Your task to perform on an android device: View the shopping cart on target.com. Image 0: 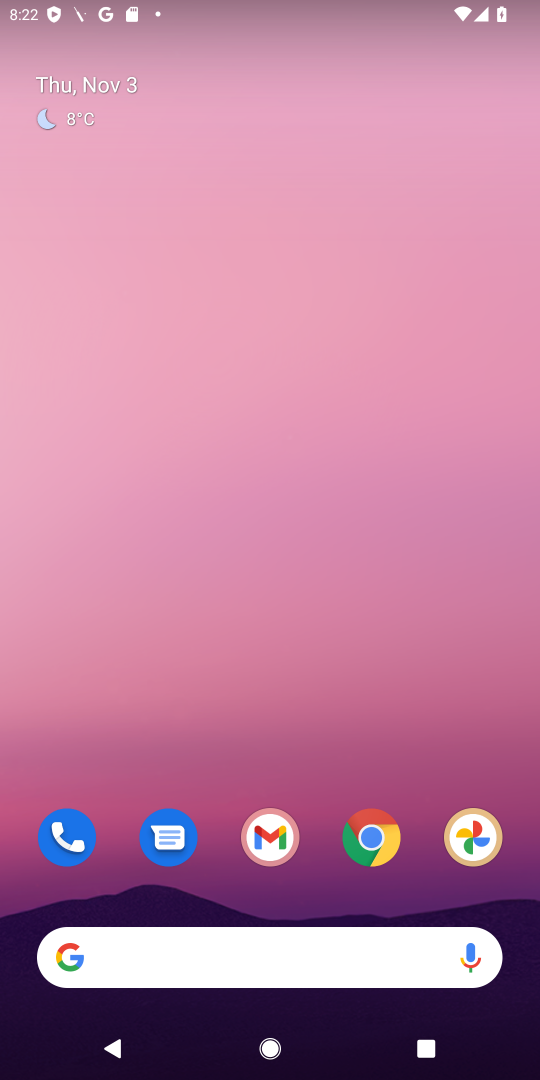
Step 0: click (374, 835)
Your task to perform on an android device: View the shopping cart on target.com. Image 1: 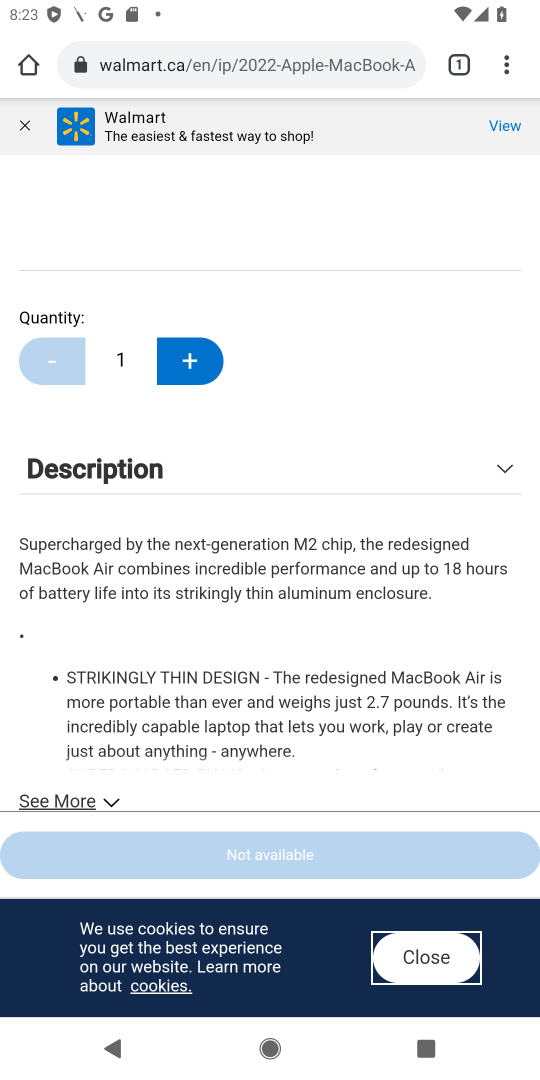
Step 1: click (258, 57)
Your task to perform on an android device: View the shopping cart on target.com. Image 2: 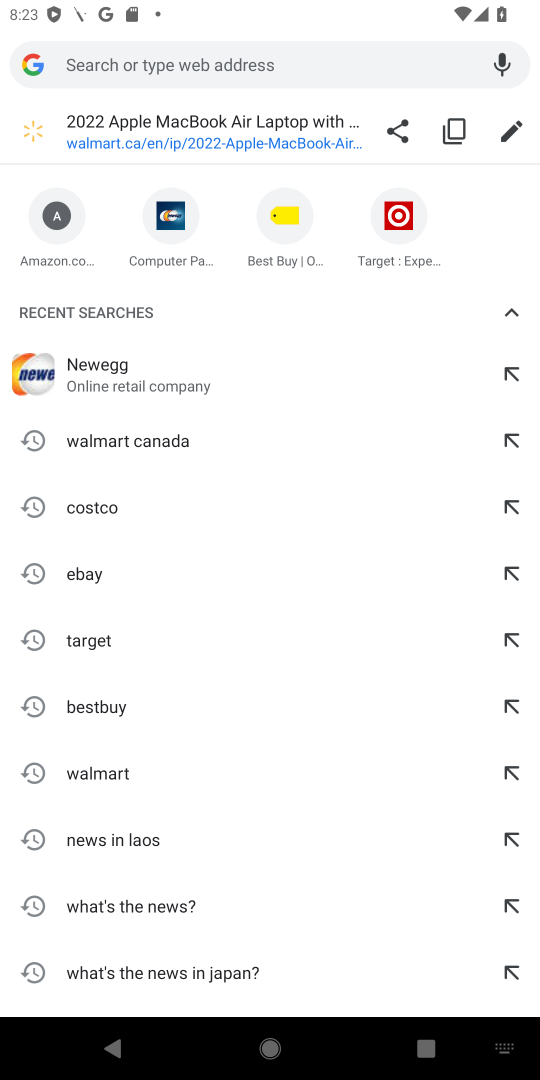
Step 2: click (87, 642)
Your task to perform on an android device: View the shopping cart on target.com. Image 3: 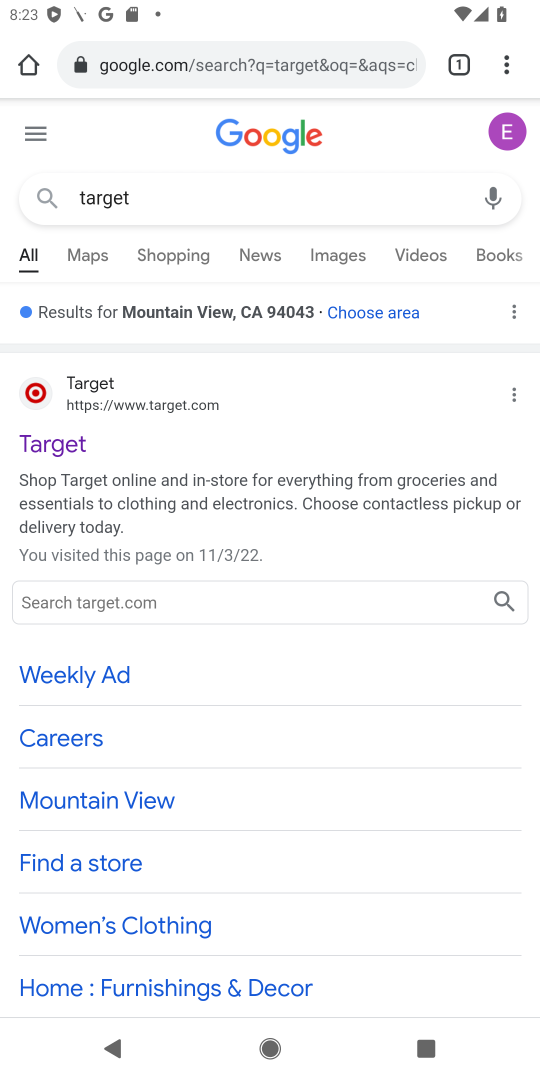
Step 3: click (56, 451)
Your task to perform on an android device: View the shopping cart on target.com. Image 4: 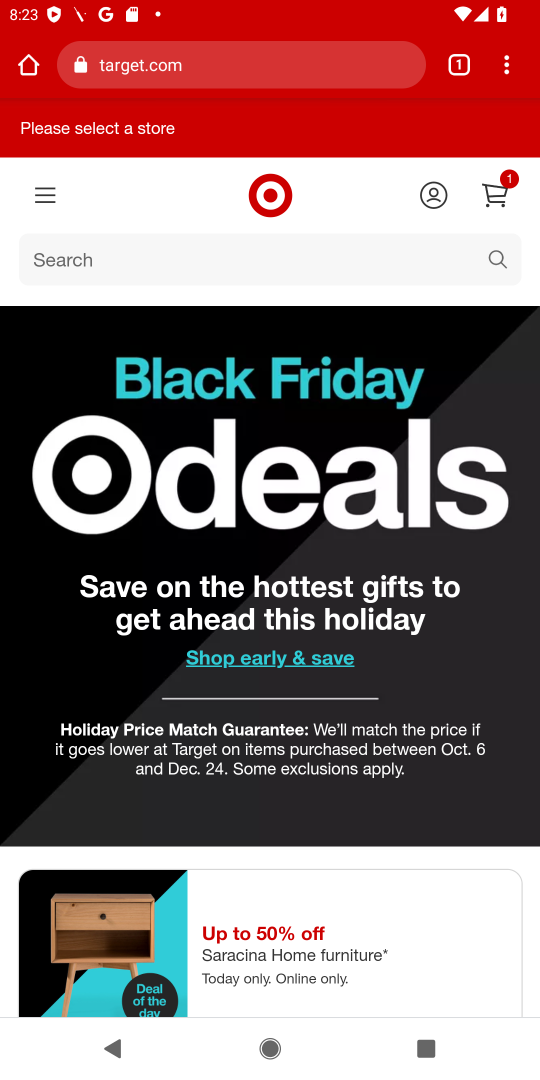
Step 4: click (499, 195)
Your task to perform on an android device: View the shopping cart on target.com. Image 5: 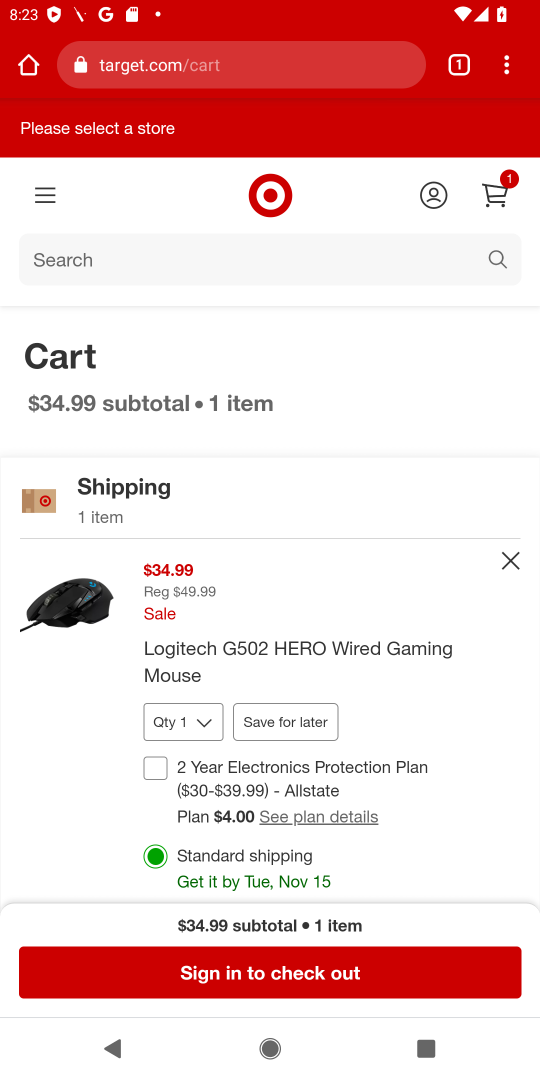
Step 5: task complete